Your task to perform on an android device: turn off priority inbox in the gmail app Image 0: 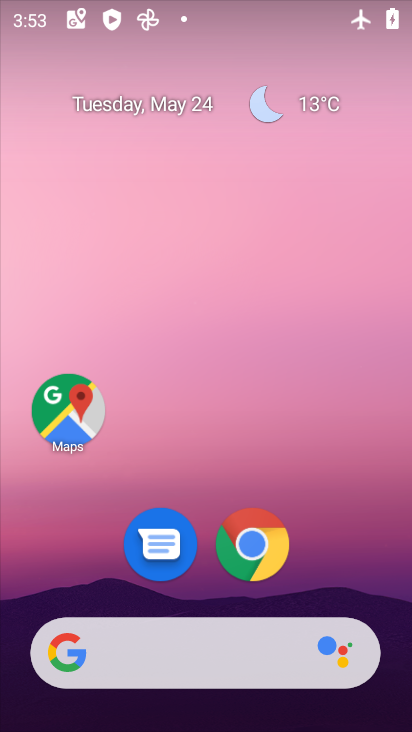
Step 0: drag from (385, 465) to (365, 128)
Your task to perform on an android device: turn off priority inbox in the gmail app Image 1: 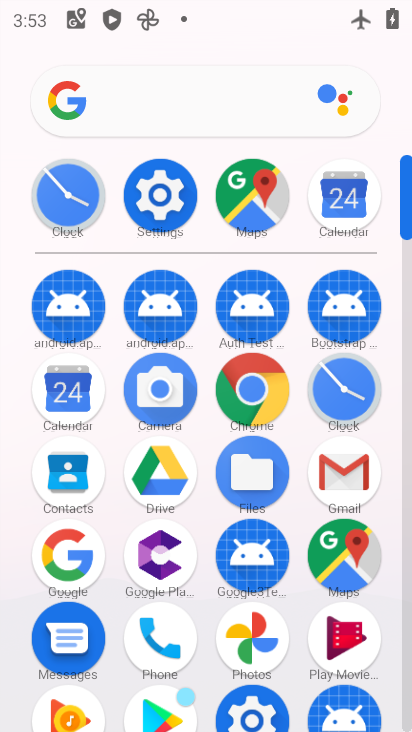
Step 1: click (352, 480)
Your task to perform on an android device: turn off priority inbox in the gmail app Image 2: 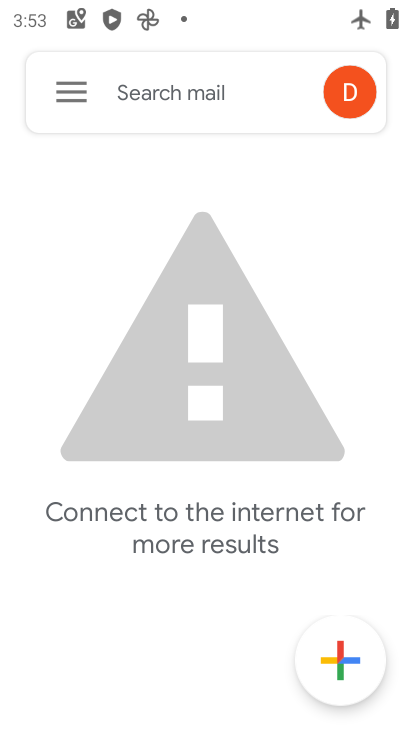
Step 2: click (79, 109)
Your task to perform on an android device: turn off priority inbox in the gmail app Image 3: 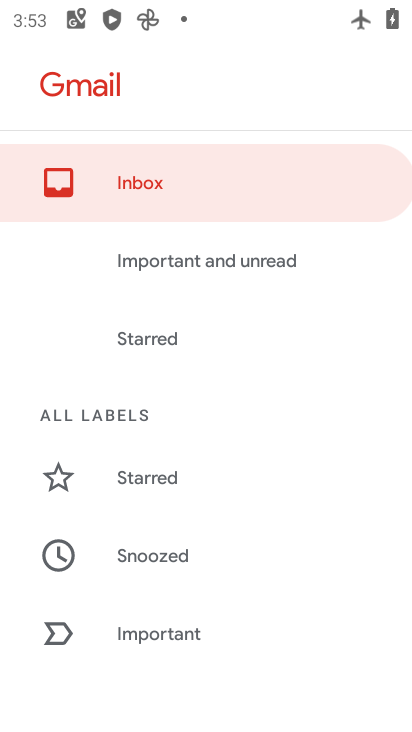
Step 3: drag from (226, 577) to (299, 192)
Your task to perform on an android device: turn off priority inbox in the gmail app Image 4: 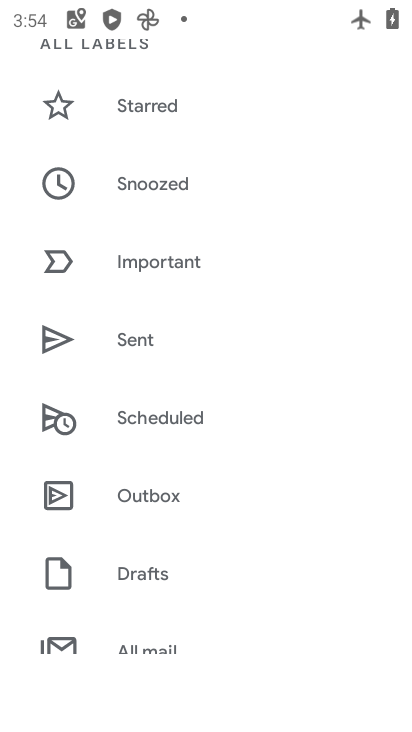
Step 4: drag from (219, 639) to (327, 172)
Your task to perform on an android device: turn off priority inbox in the gmail app Image 5: 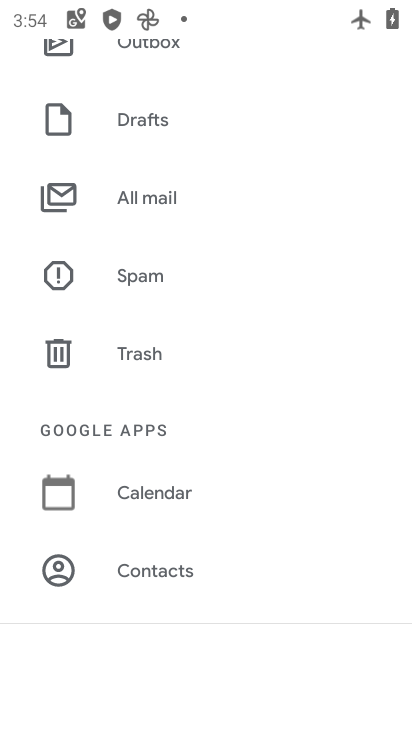
Step 5: drag from (175, 573) to (239, 135)
Your task to perform on an android device: turn off priority inbox in the gmail app Image 6: 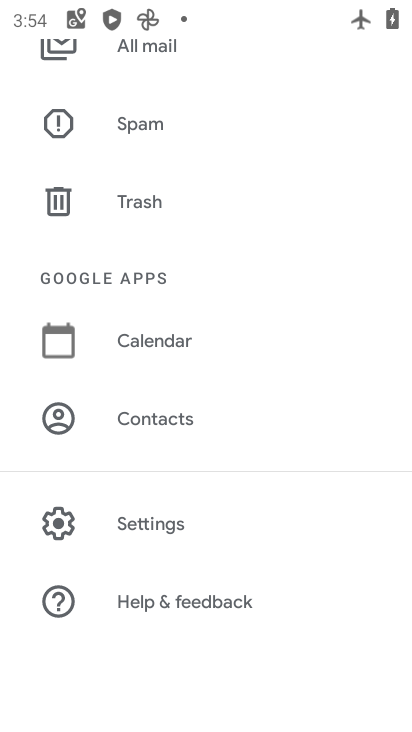
Step 6: click (156, 518)
Your task to perform on an android device: turn off priority inbox in the gmail app Image 7: 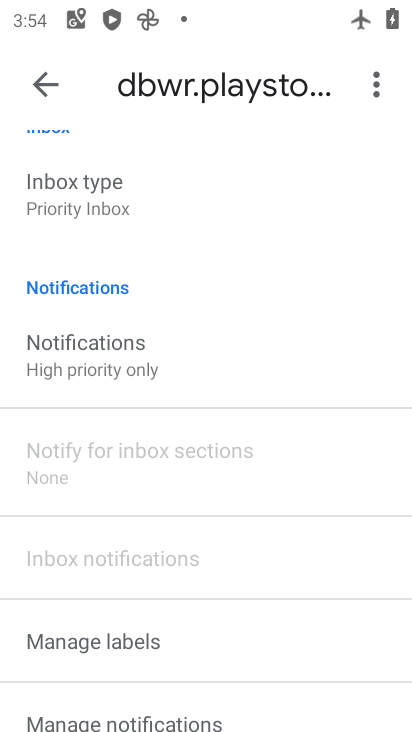
Step 7: click (108, 215)
Your task to perform on an android device: turn off priority inbox in the gmail app Image 8: 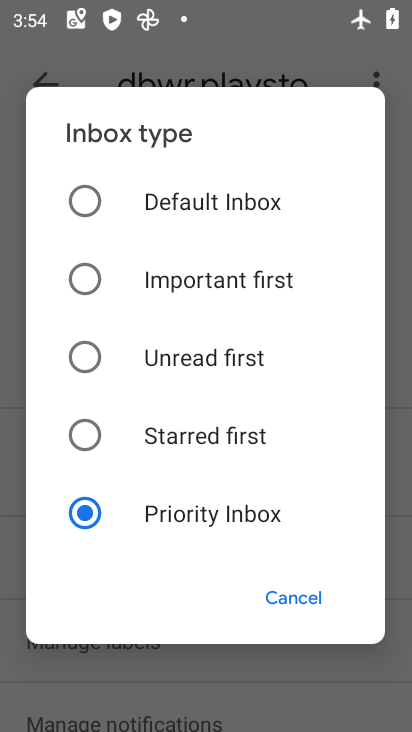
Step 8: drag from (222, 275) to (208, 568)
Your task to perform on an android device: turn off priority inbox in the gmail app Image 9: 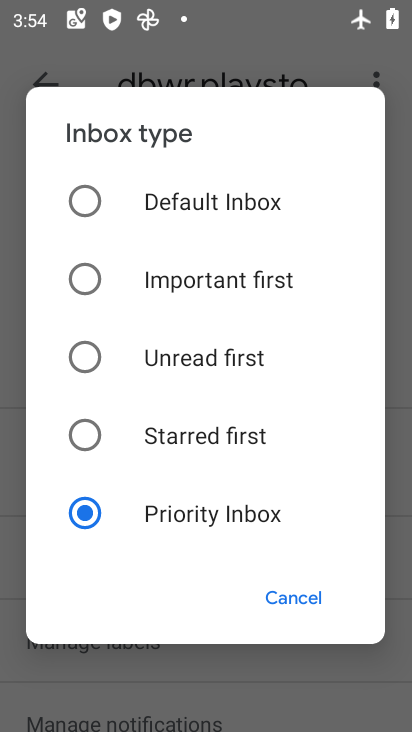
Step 9: click (92, 214)
Your task to perform on an android device: turn off priority inbox in the gmail app Image 10: 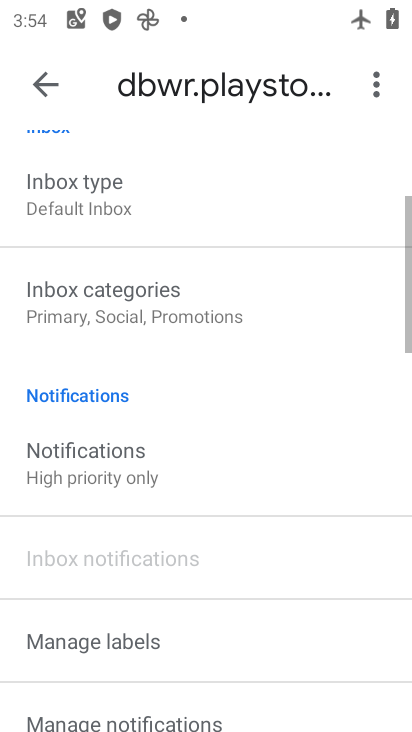
Step 10: task complete